Your task to perform on an android device: Search for pizza restaurants on Maps Image 0: 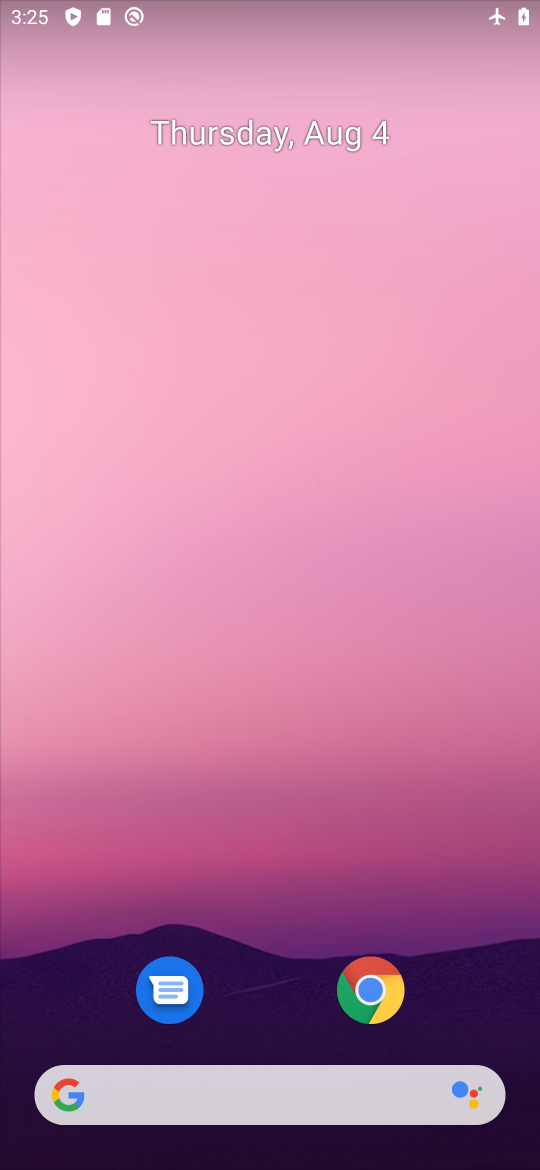
Step 0: drag from (314, 1039) to (283, 152)
Your task to perform on an android device: Search for pizza restaurants on Maps Image 1: 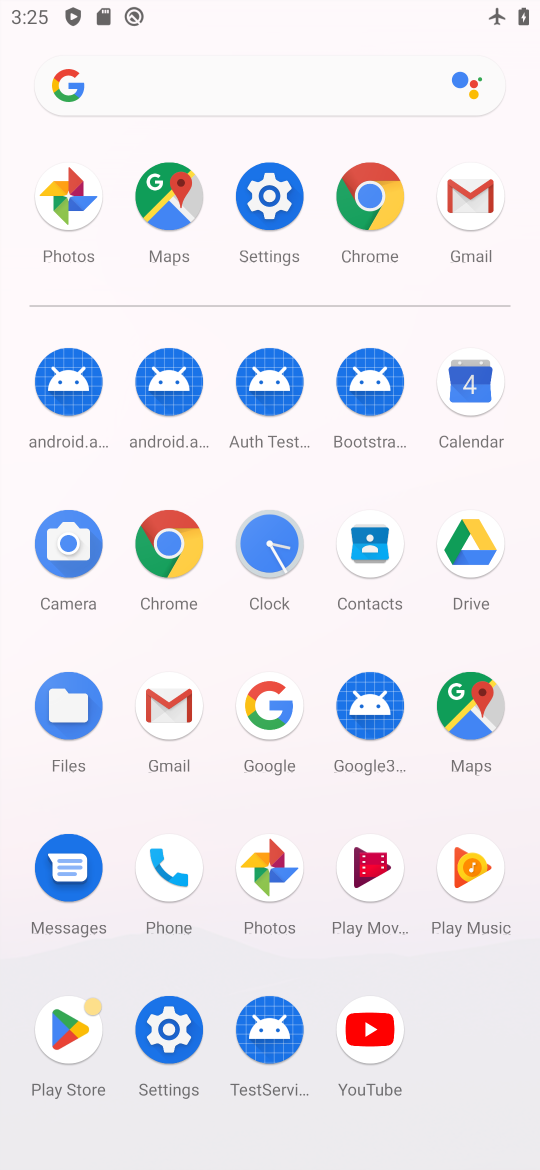
Step 1: click (161, 243)
Your task to perform on an android device: Search for pizza restaurants on Maps Image 2: 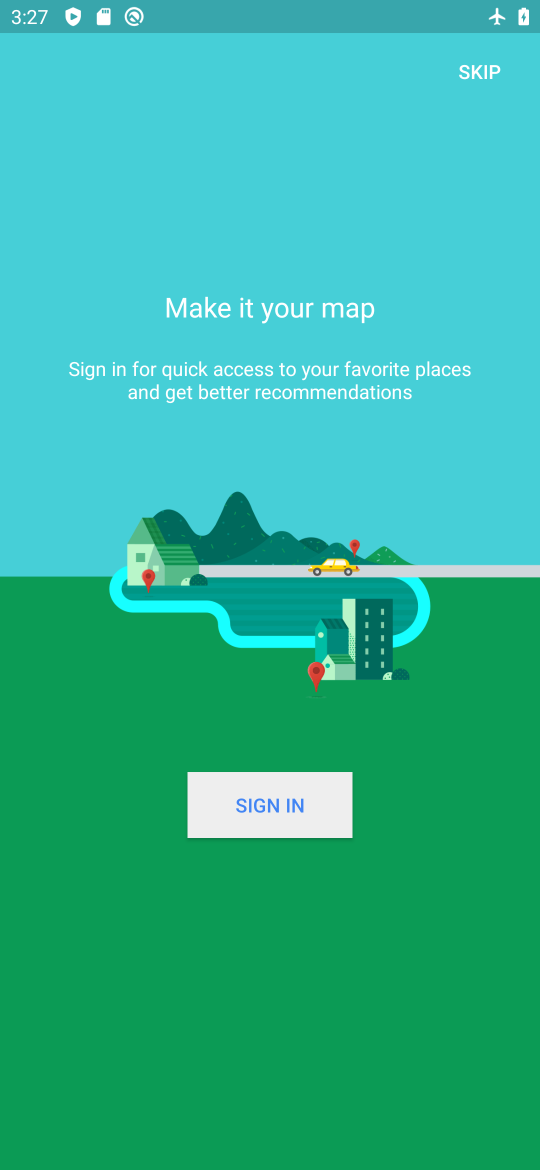
Step 2: task complete